Your task to perform on an android device: Search for a new lawnmower on home depot Image 0: 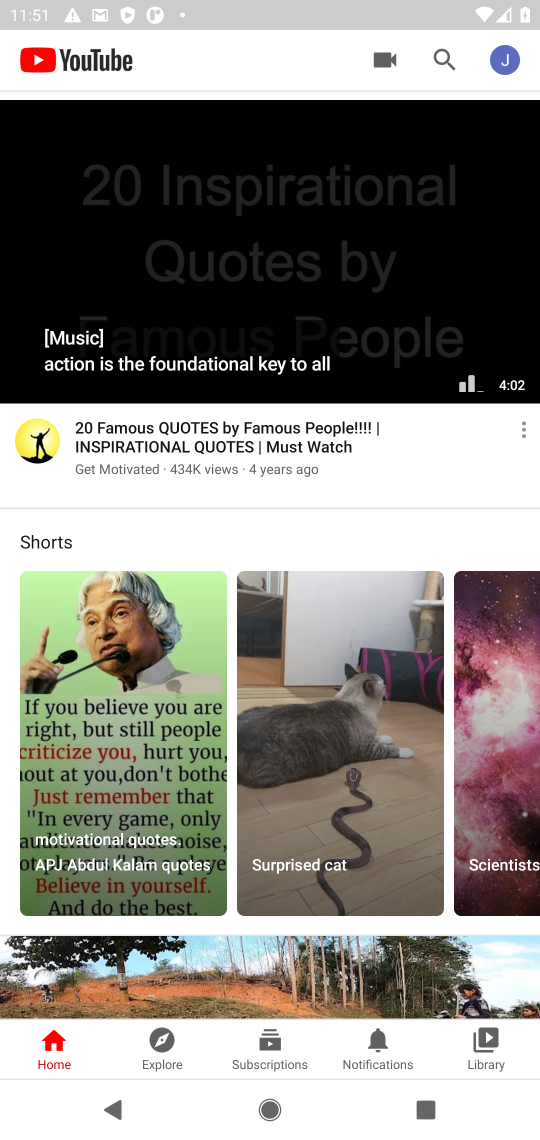
Step 0: press home button
Your task to perform on an android device: Search for a new lawnmower on home depot Image 1: 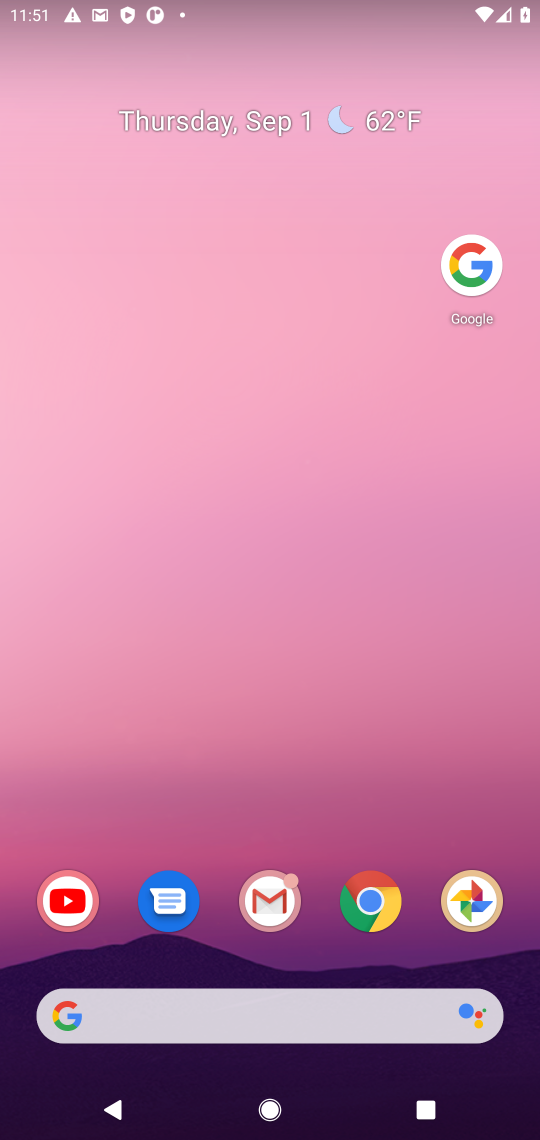
Step 1: drag from (159, 940) to (163, 324)
Your task to perform on an android device: Search for a new lawnmower on home depot Image 2: 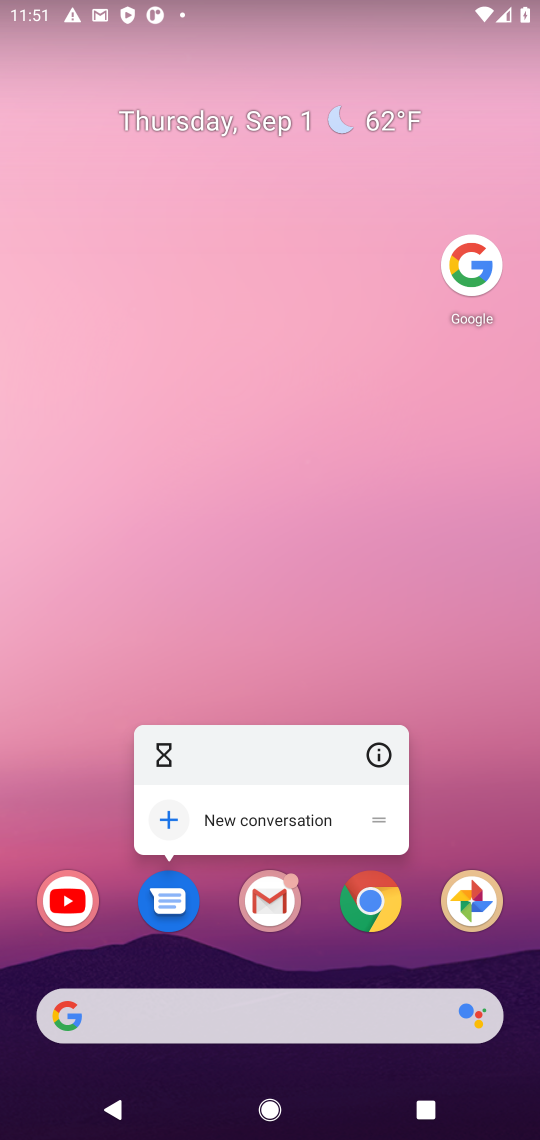
Step 2: click (286, 567)
Your task to perform on an android device: Search for a new lawnmower on home depot Image 3: 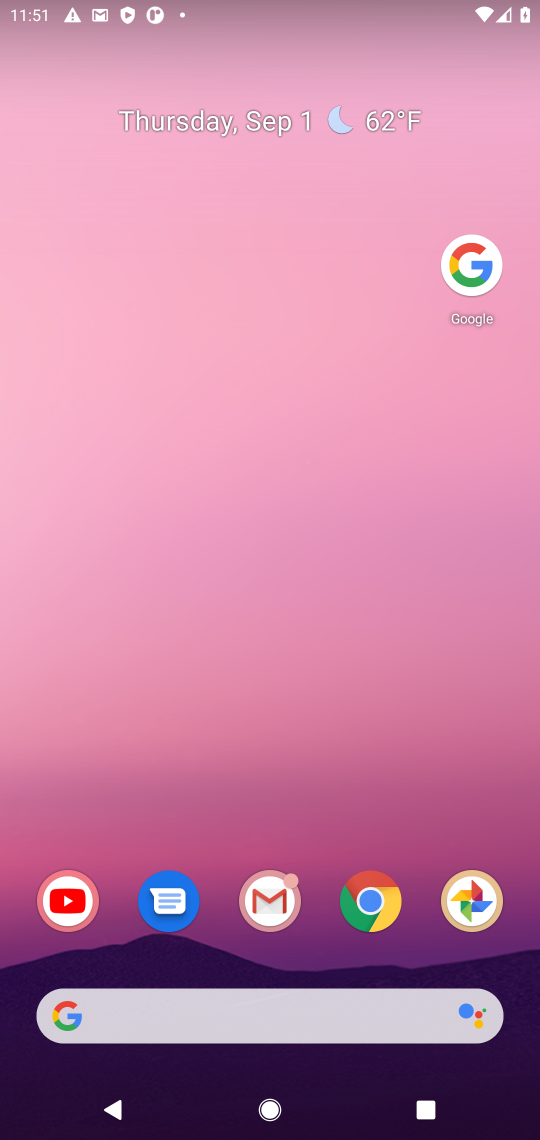
Step 3: click (365, 401)
Your task to perform on an android device: Search for a new lawnmower on home depot Image 4: 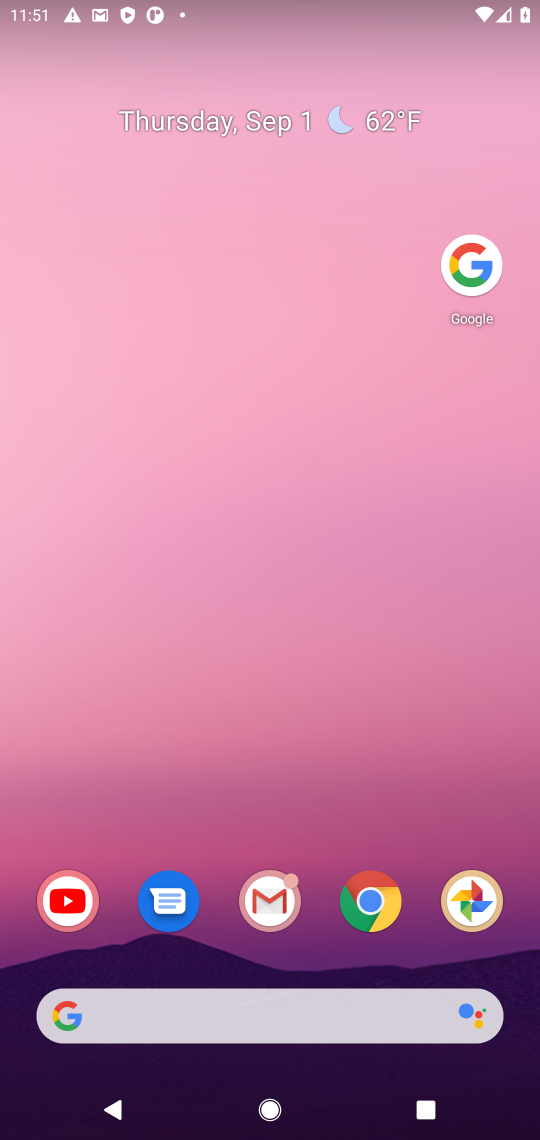
Step 4: click (476, 256)
Your task to perform on an android device: Search for a new lawnmower on home depot Image 5: 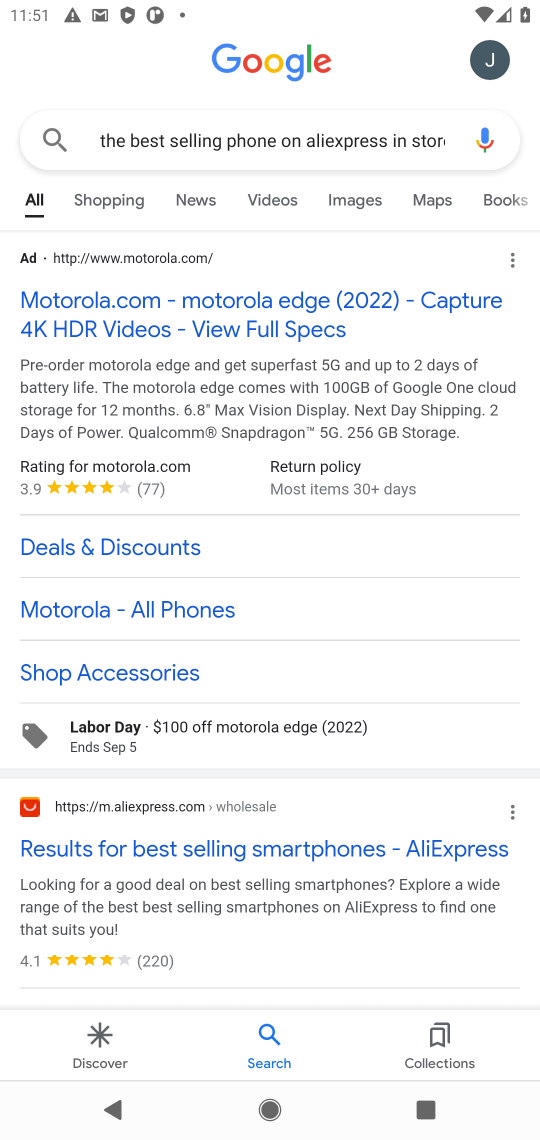
Step 5: click (384, 131)
Your task to perform on an android device: Search for a new lawnmower on home depot Image 6: 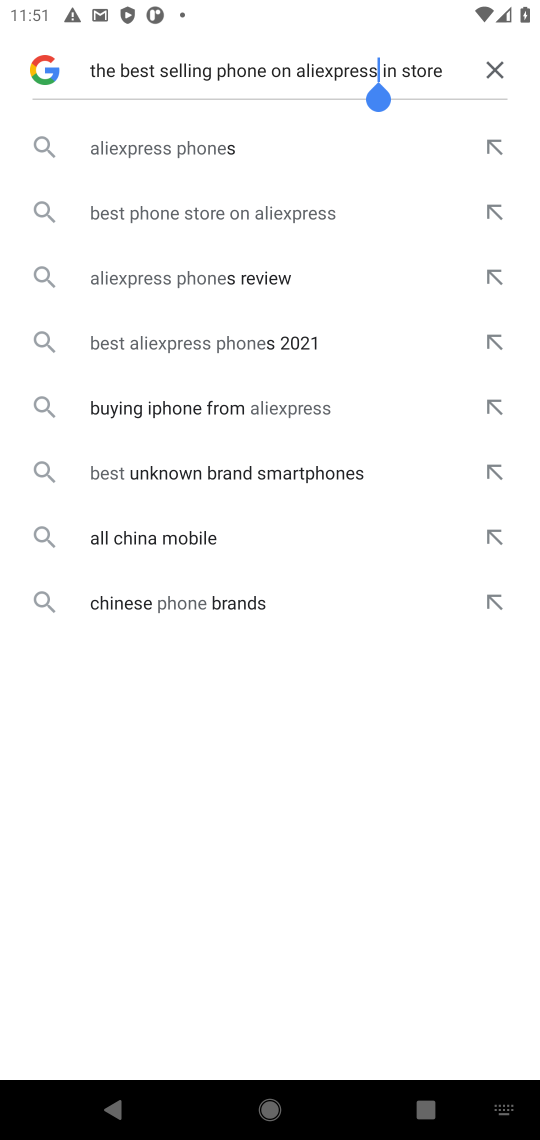
Step 6: click (491, 54)
Your task to perform on an android device: Search for a new lawnmower on home depot Image 7: 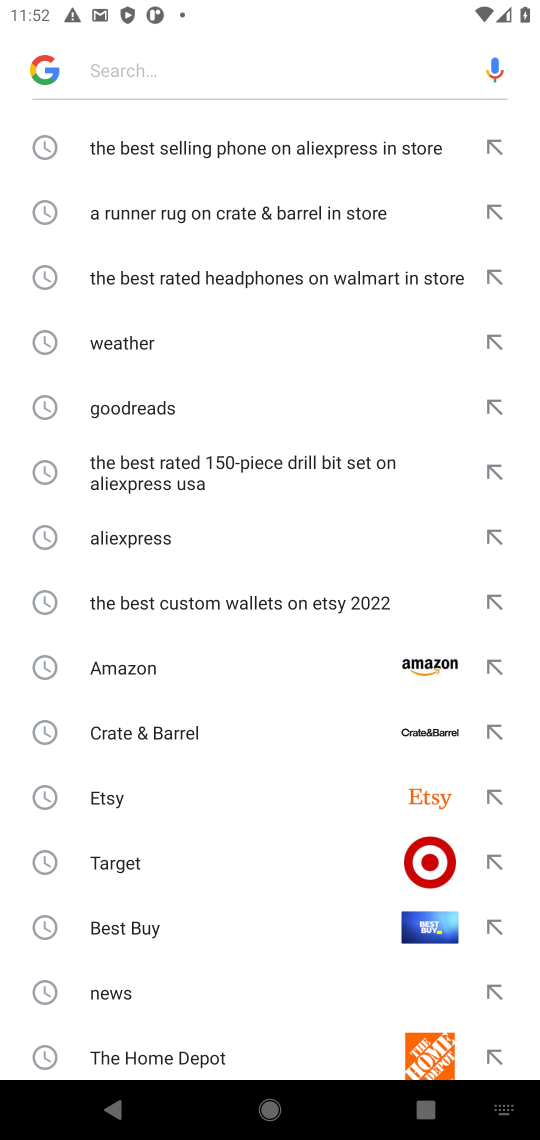
Step 7: click (253, 75)
Your task to perform on an android device: Search for a new lawnmower on home depot Image 8: 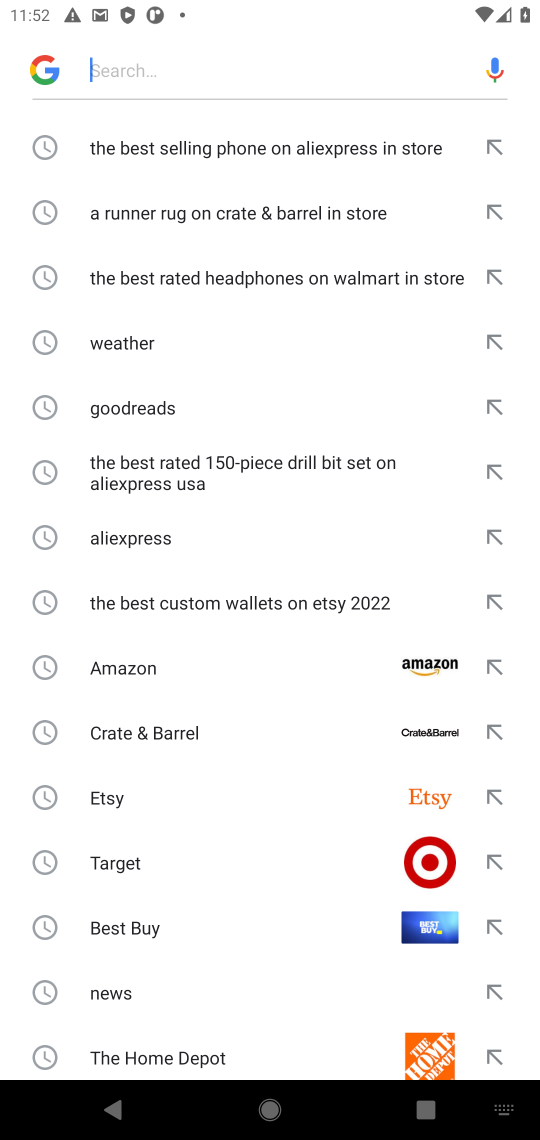
Step 8: type " a new lawnmower on home depot "
Your task to perform on an android device: Search for a new lawnmower on home depot Image 9: 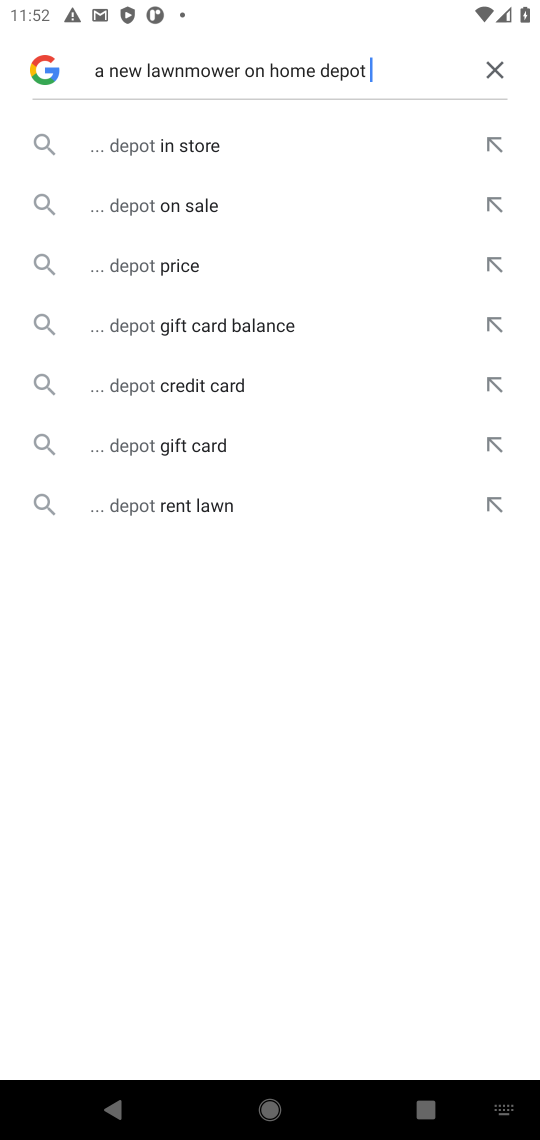
Step 9: click (263, 150)
Your task to perform on an android device: Search for a new lawnmower on home depot Image 10: 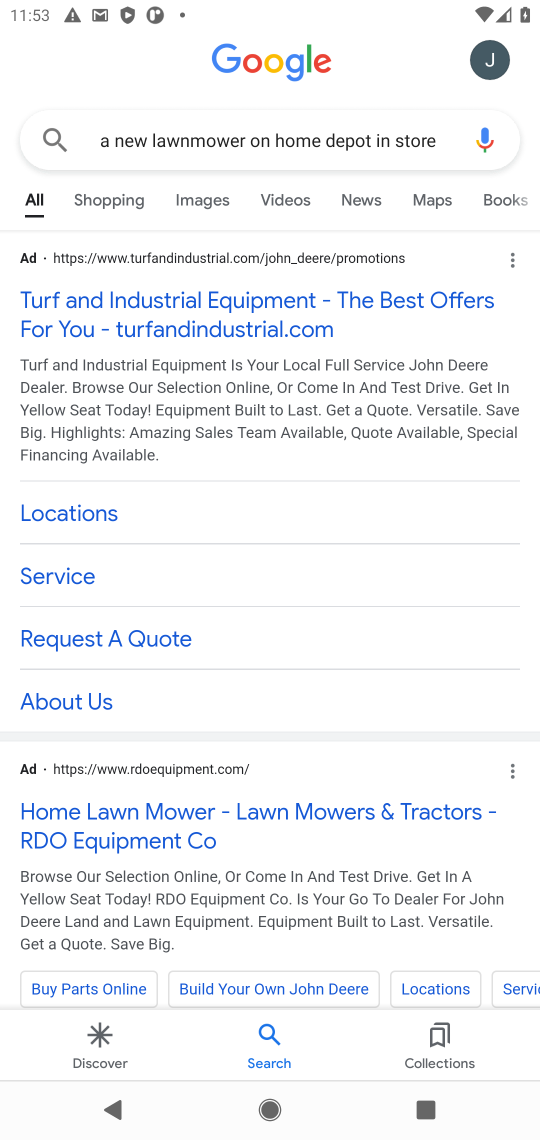
Step 10: click (239, 291)
Your task to perform on an android device: Search for a new lawnmower on home depot Image 11: 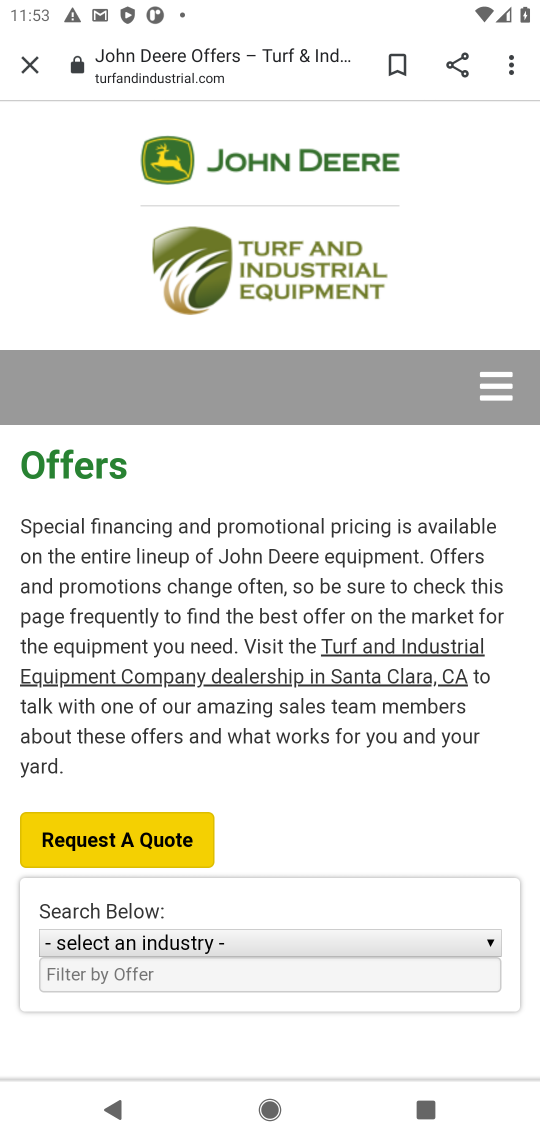
Step 11: drag from (230, 869) to (284, 546)
Your task to perform on an android device: Search for a new lawnmower on home depot Image 12: 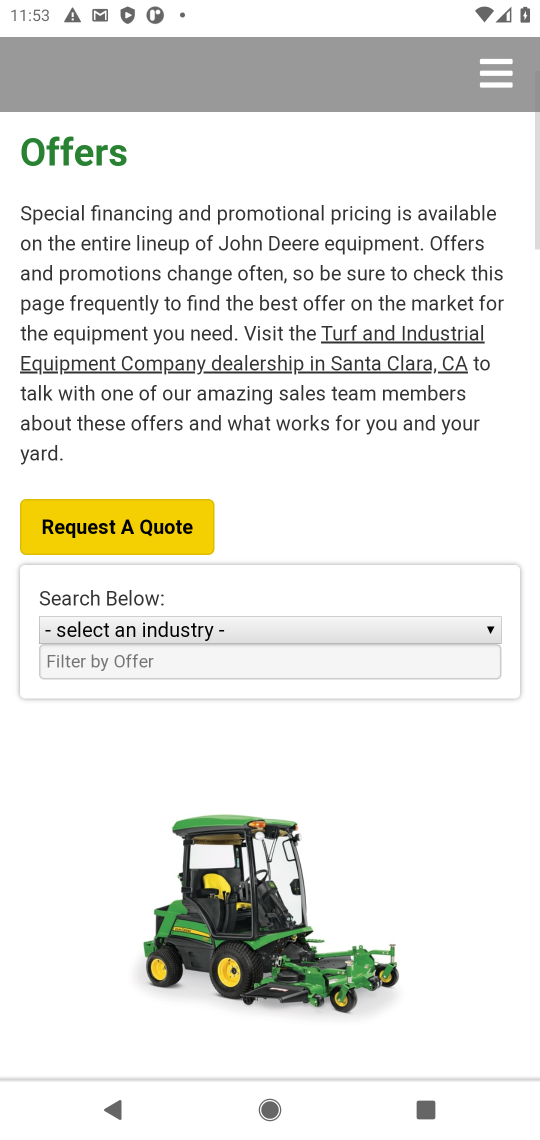
Step 12: drag from (234, 989) to (269, 500)
Your task to perform on an android device: Search for a new lawnmower on home depot Image 13: 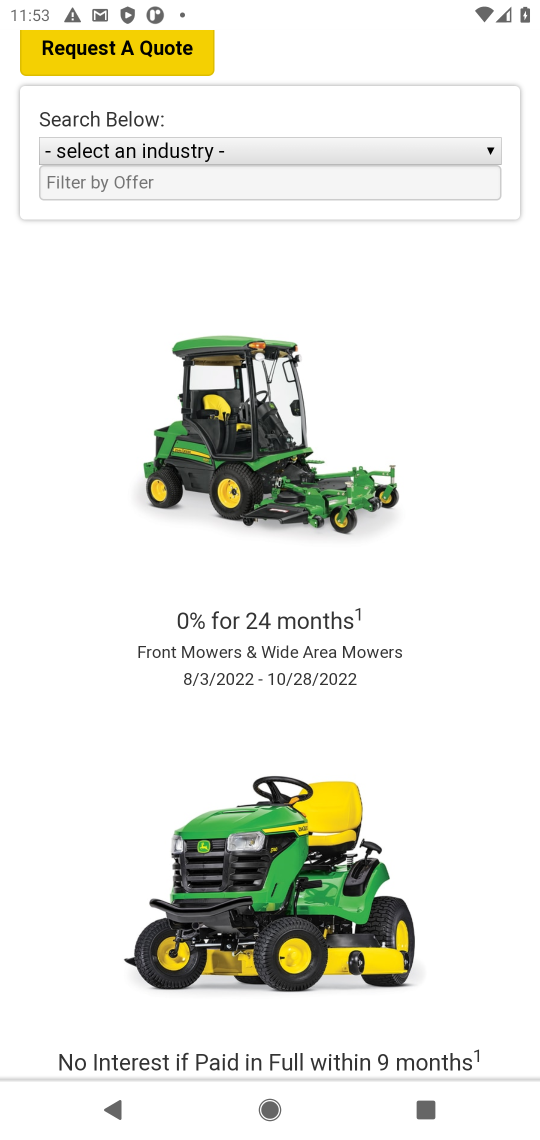
Step 13: drag from (185, 343) to (168, 1026)
Your task to perform on an android device: Search for a new lawnmower on home depot Image 14: 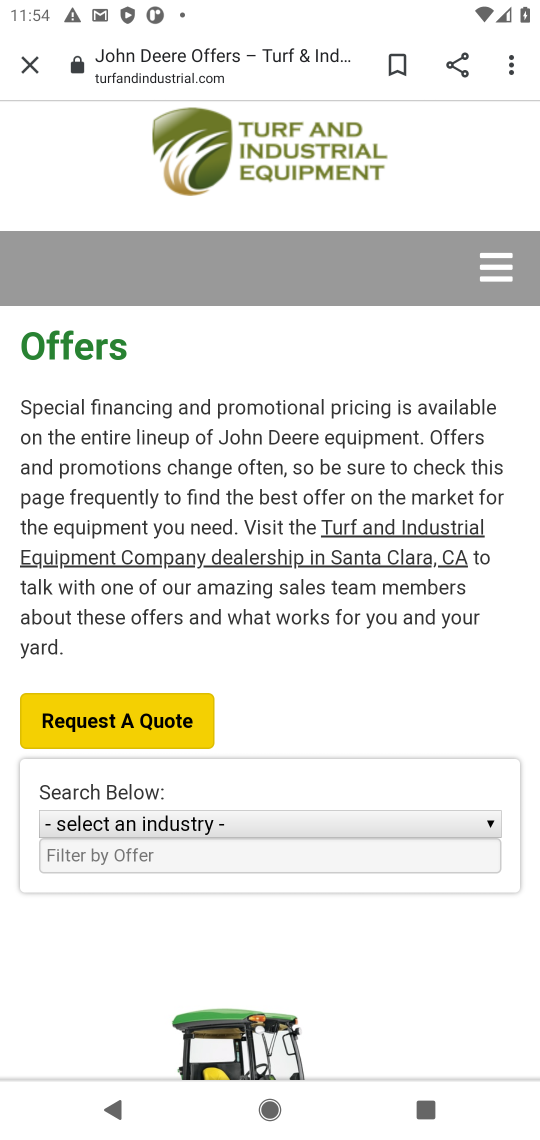
Step 14: press back button
Your task to perform on an android device: Search for a new lawnmower on home depot Image 15: 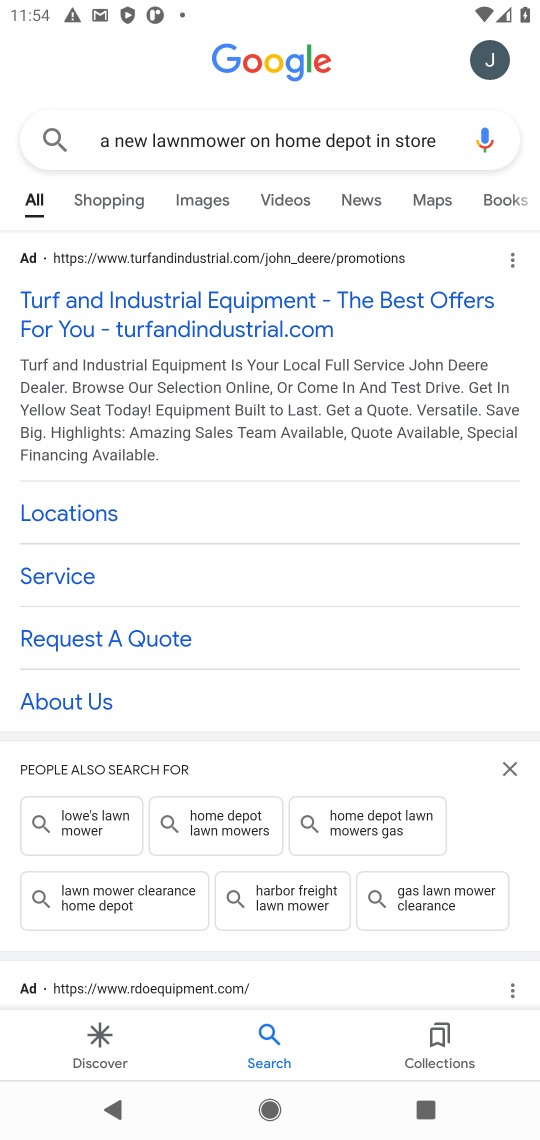
Step 15: drag from (174, 726) to (262, 258)
Your task to perform on an android device: Search for a new lawnmower on home depot Image 16: 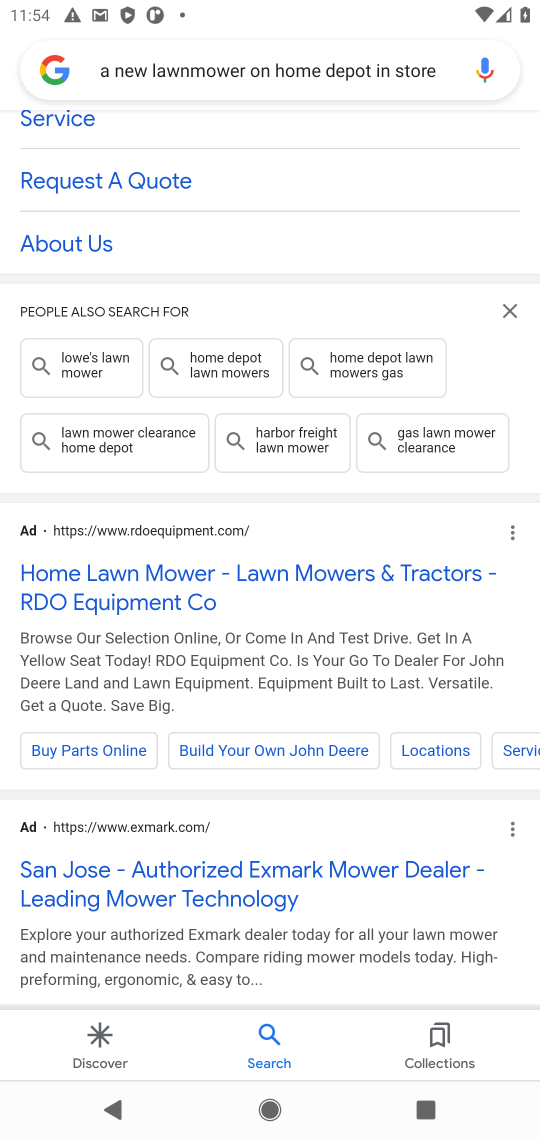
Step 16: drag from (212, 912) to (263, 429)
Your task to perform on an android device: Search for a new lawnmower on home depot Image 17: 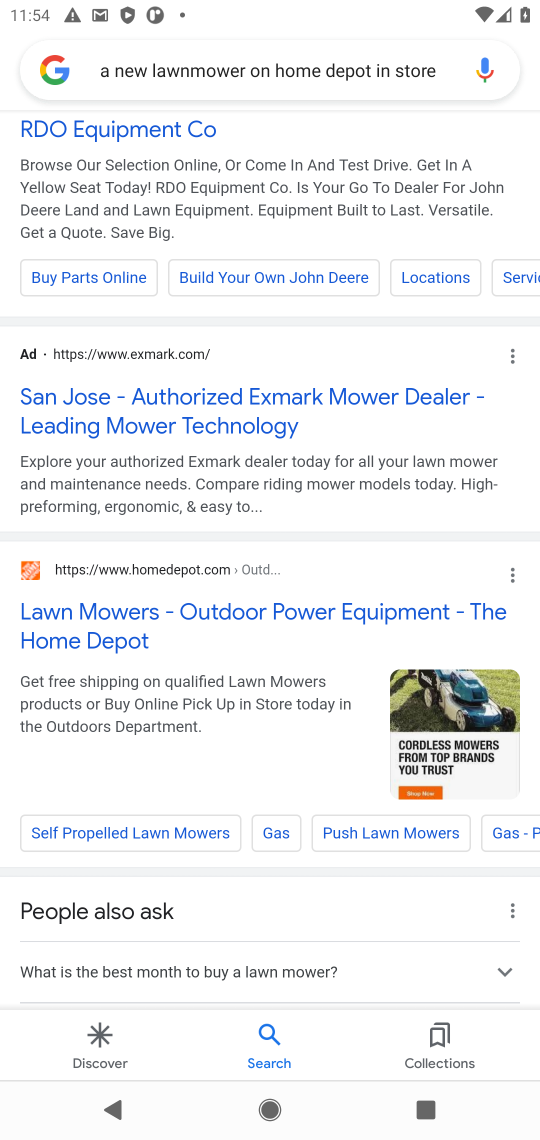
Step 17: click (125, 616)
Your task to perform on an android device: Search for a new lawnmower on home depot Image 18: 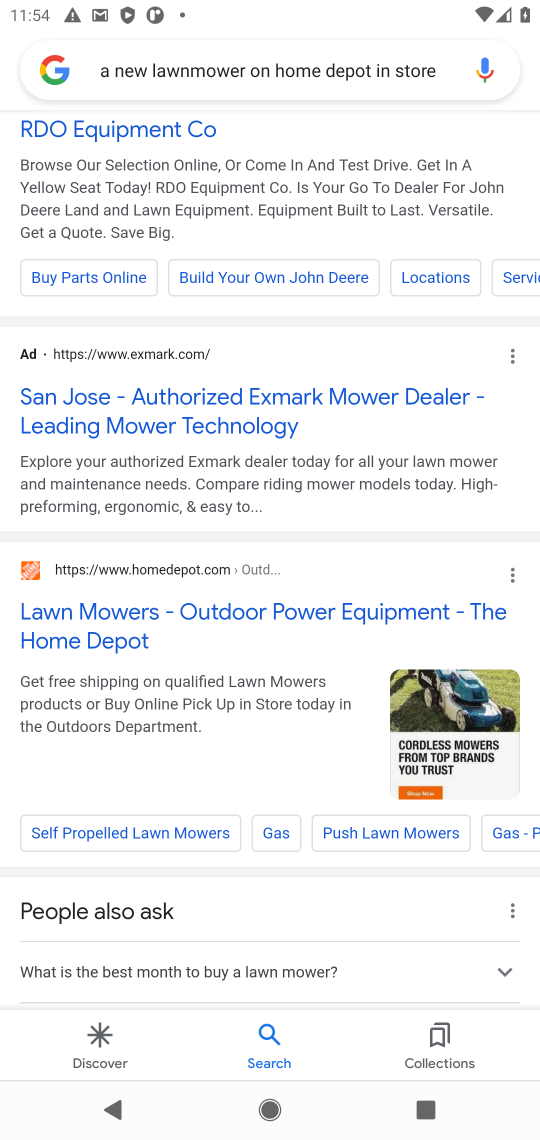
Step 18: click (125, 616)
Your task to perform on an android device: Search for a new lawnmower on home depot Image 19: 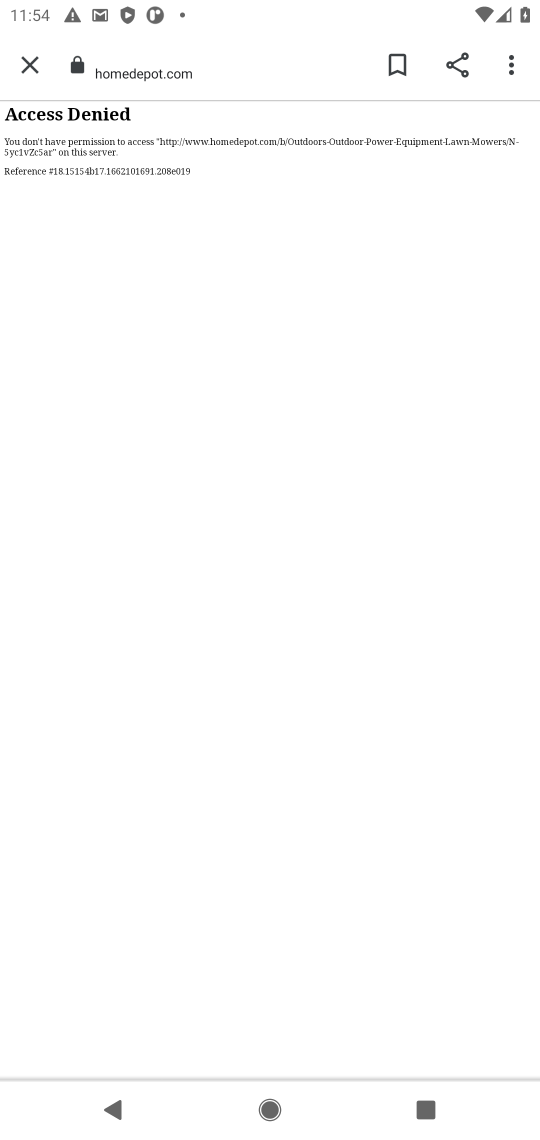
Step 19: click (89, 616)
Your task to perform on an android device: Search for a new lawnmower on home depot Image 20: 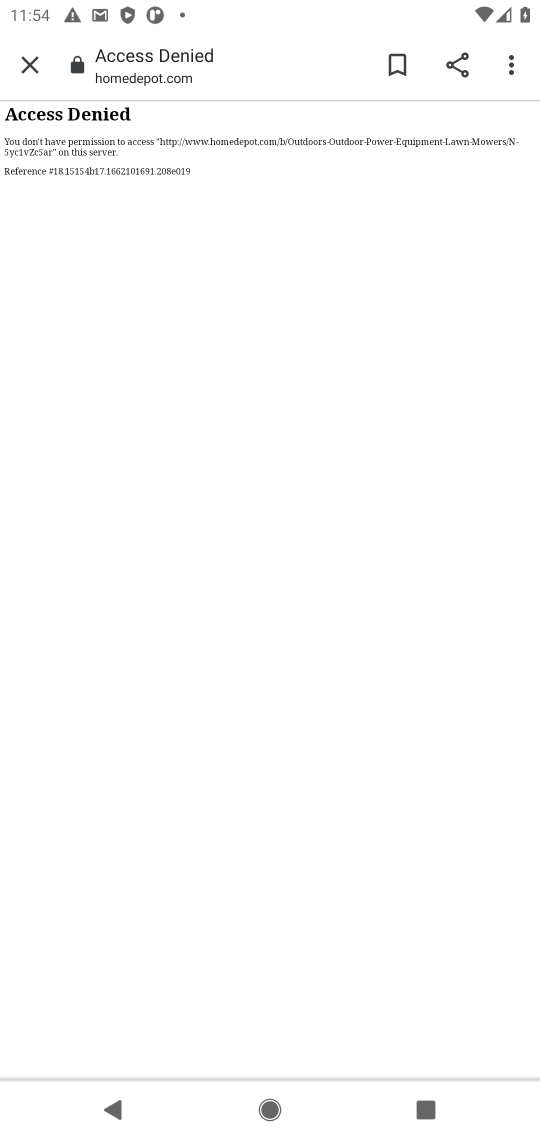
Step 20: task complete